Your task to perform on an android device: Is it going to rain this weekend? Image 0: 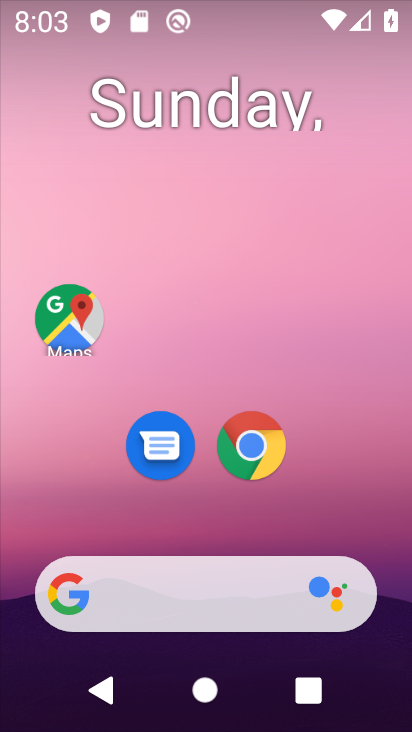
Step 0: click (165, 585)
Your task to perform on an android device: Is it going to rain this weekend? Image 1: 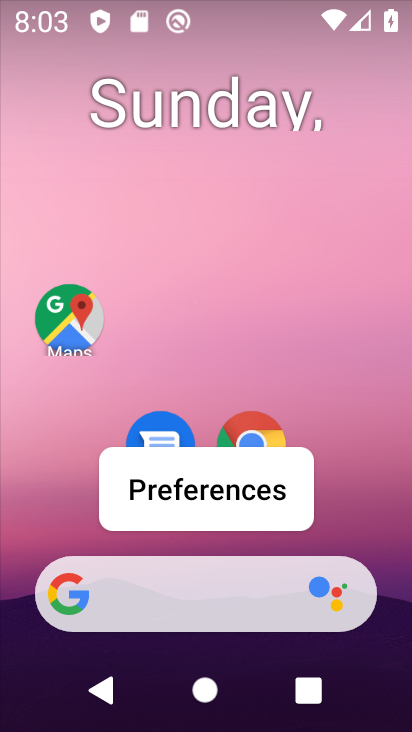
Step 1: click (170, 583)
Your task to perform on an android device: Is it going to rain this weekend? Image 2: 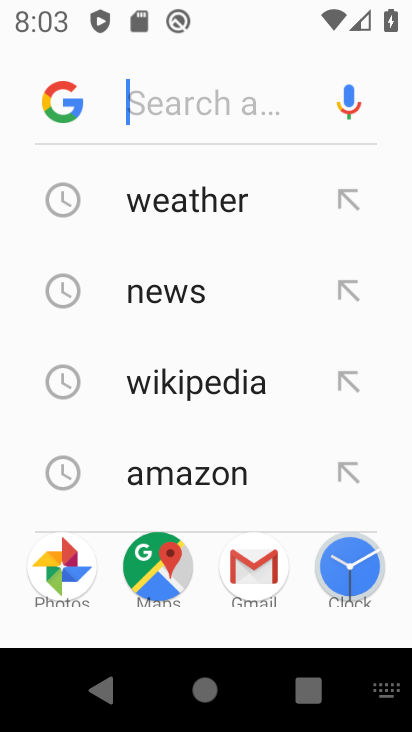
Step 2: type "is it going to rain this weekend"
Your task to perform on an android device: Is it going to rain this weekend? Image 3: 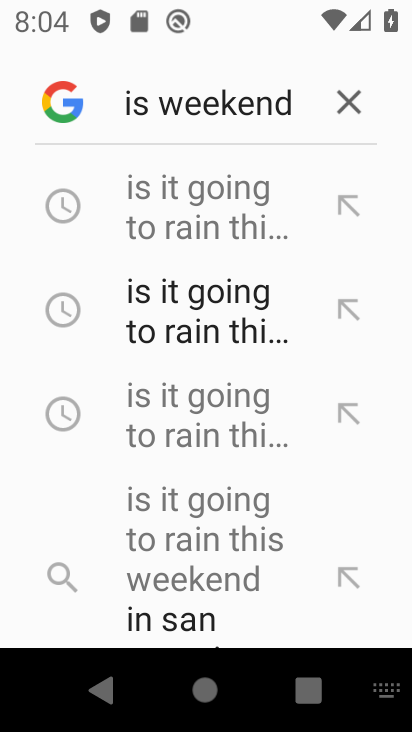
Step 3: click (180, 302)
Your task to perform on an android device: Is it going to rain this weekend? Image 4: 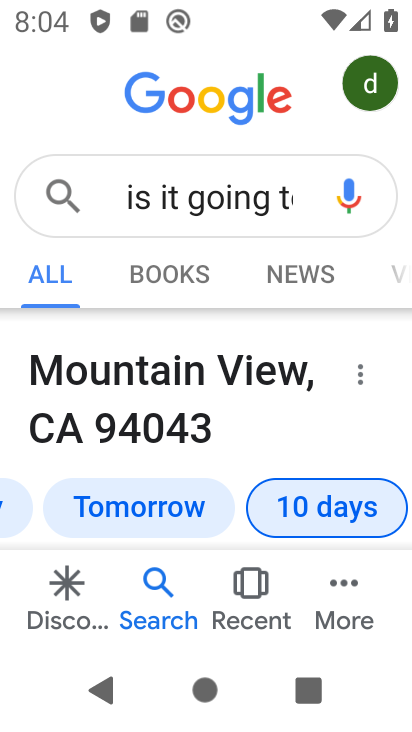
Step 4: task complete